Your task to perform on an android device: open chrome privacy settings Image 0: 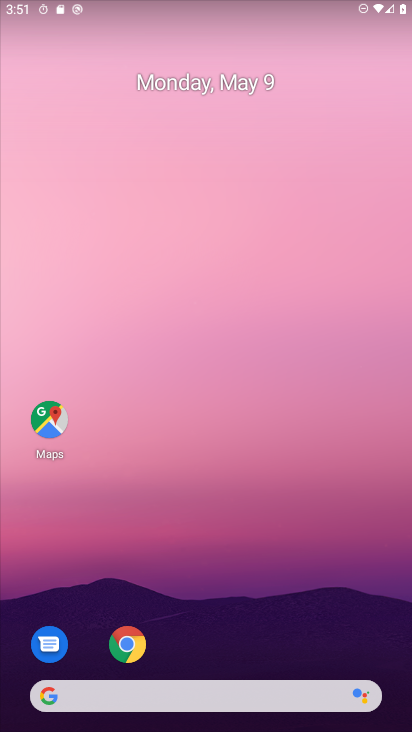
Step 0: drag from (249, 622) to (266, 22)
Your task to perform on an android device: open chrome privacy settings Image 1: 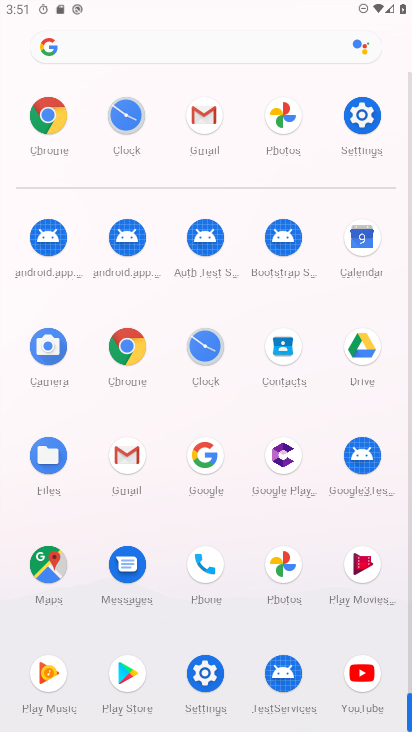
Step 1: click (125, 384)
Your task to perform on an android device: open chrome privacy settings Image 2: 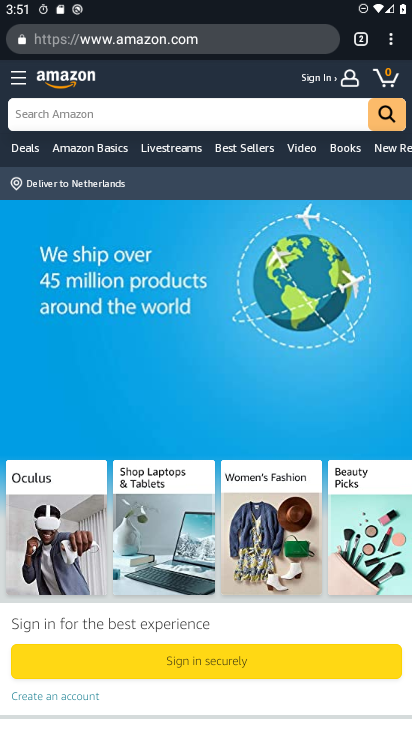
Step 2: click (393, 43)
Your task to perform on an android device: open chrome privacy settings Image 3: 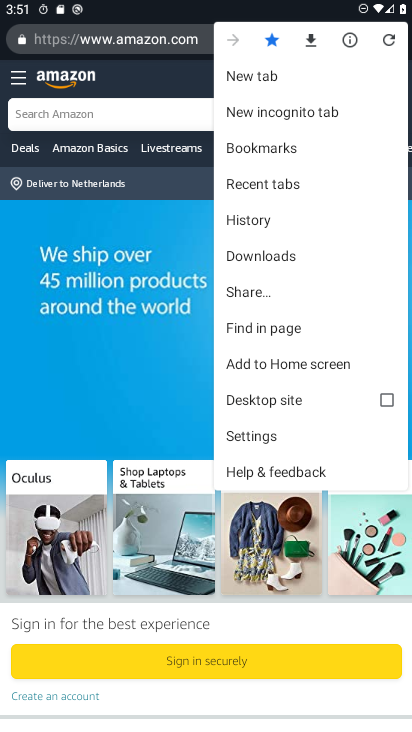
Step 3: click (242, 436)
Your task to perform on an android device: open chrome privacy settings Image 4: 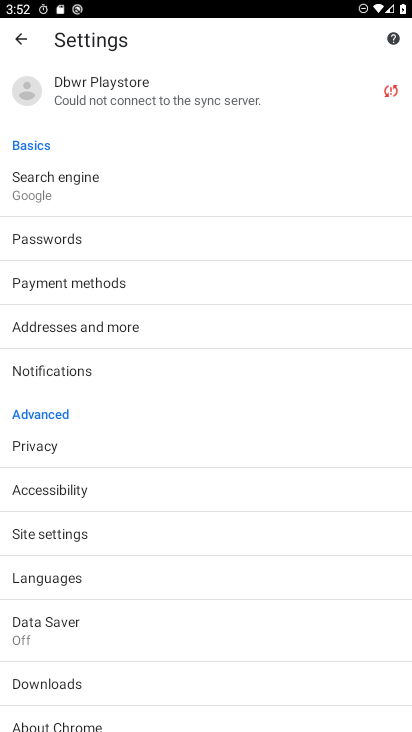
Step 4: click (43, 458)
Your task to perform on an android device: open chrome privacy settings Image 5: 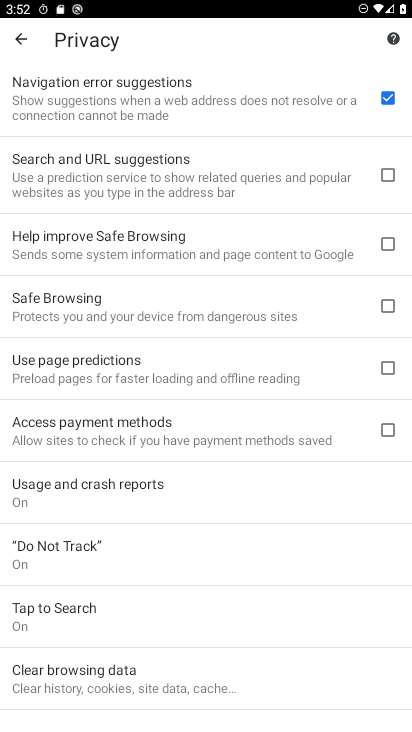
Step 5: task complete